Your task to perform on an android device: find which apps use the phone's location Image 0: 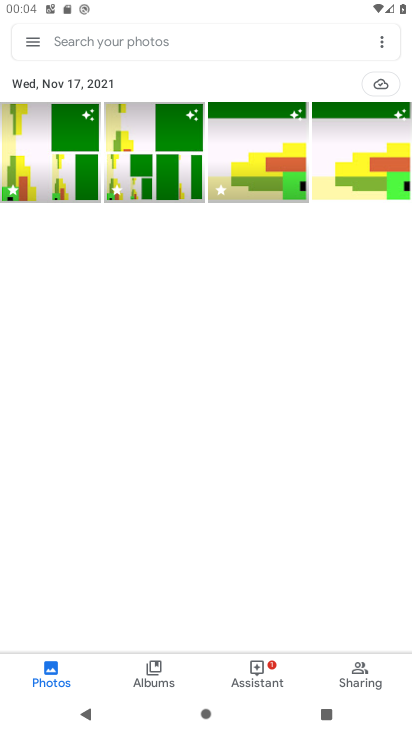
Step 0: press home button
Your task to perform on an android device: find which apps use the phone's location Image 1: 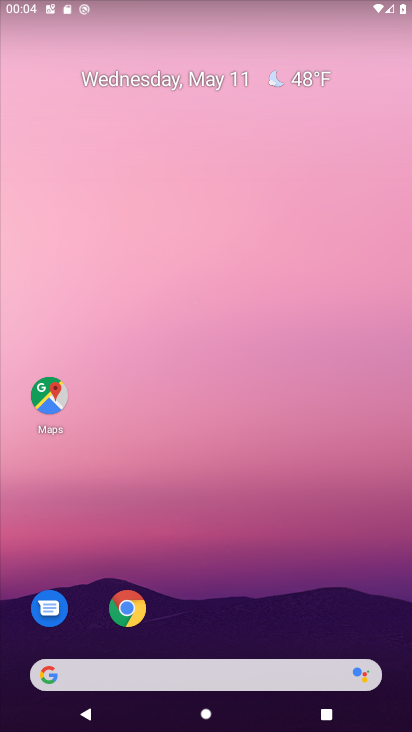
Step 1: drag from (181, 589) to (208, 196)
Your task to perform on an android device: find which apps use the phone's location Image 2: 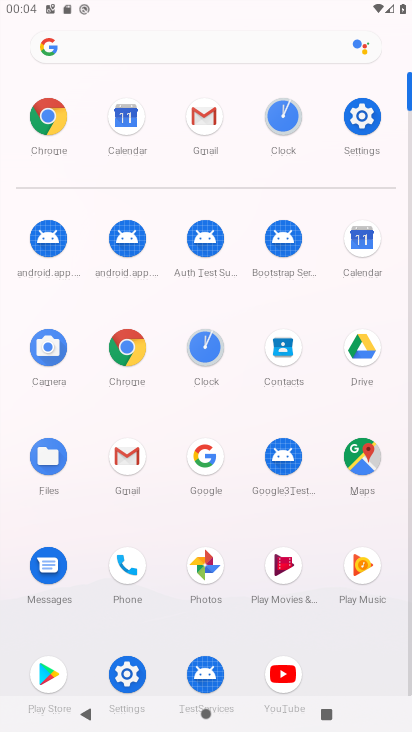
Step 2: click (133, 665)
Your task to perform on an android device: find which apps use the phone's location Image 3: 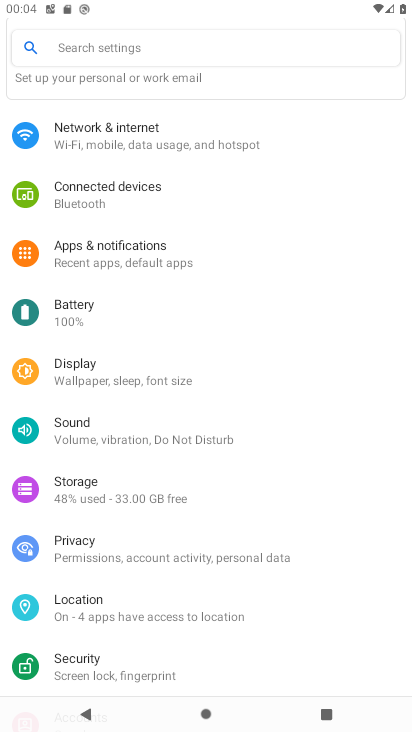
Step 3: click (142, 609)
Your task to perform on an android device: find which apps use the phone's location Image 4: 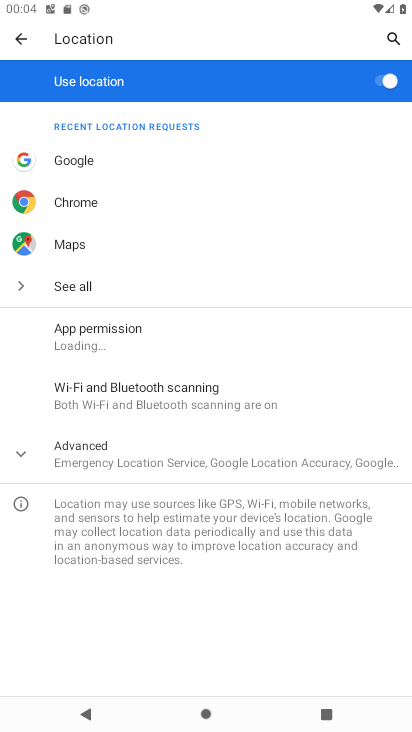
Step 4: click (95, 342)
Your task to perform on an android device: find which apps use the phone's location Image 5: 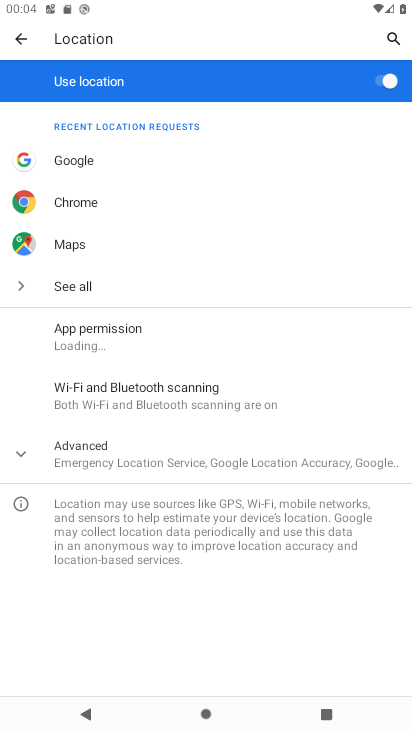
Step 5: click (95, 342)
Your task to perform on an android device: find which apps use the phone's location Image 6: 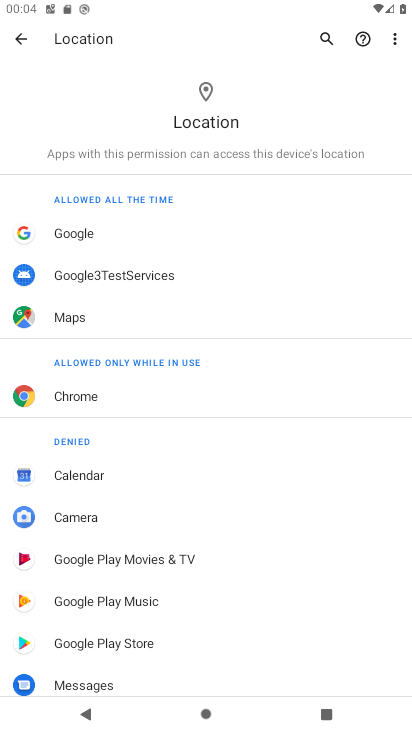
Step 6: task complete